Your task to perform on an android device: Open Chrome and go to settings Image 0: 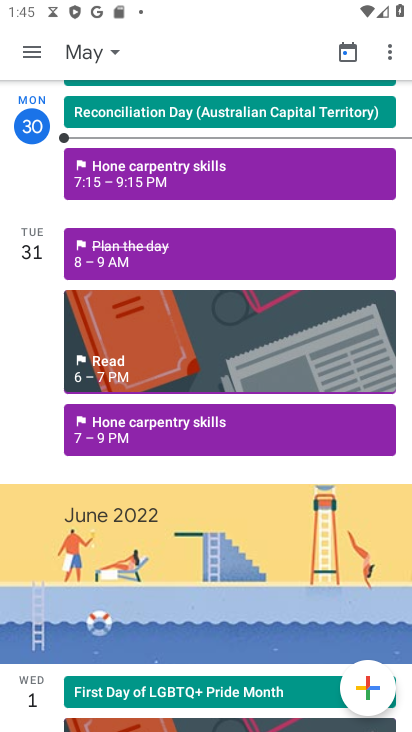
Step 0: press home button
Your task to perform on an android device: Open Chrome and go to settings Image 1: 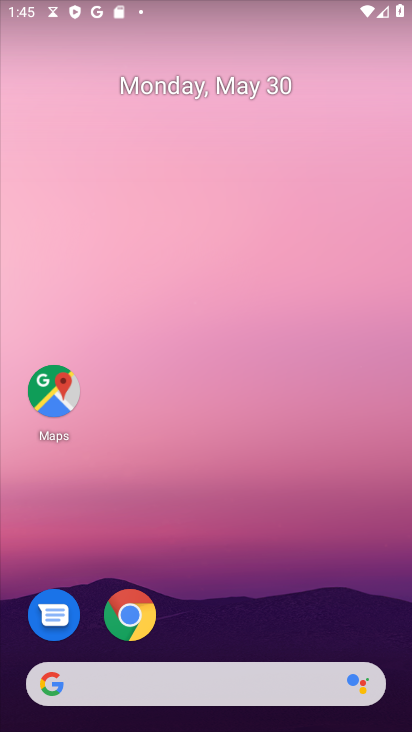
Step 1: drag from (326, 550) to (330, 0)
Your task to perform on an android device: Open Chrome and go to settings Image 2: 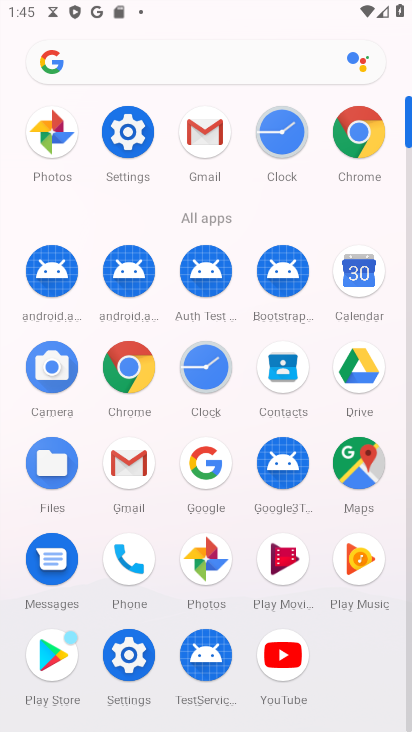
Step 2: click (368, 143)
Your task to perform on an android device: Open Chrome and go to settings Image 3: 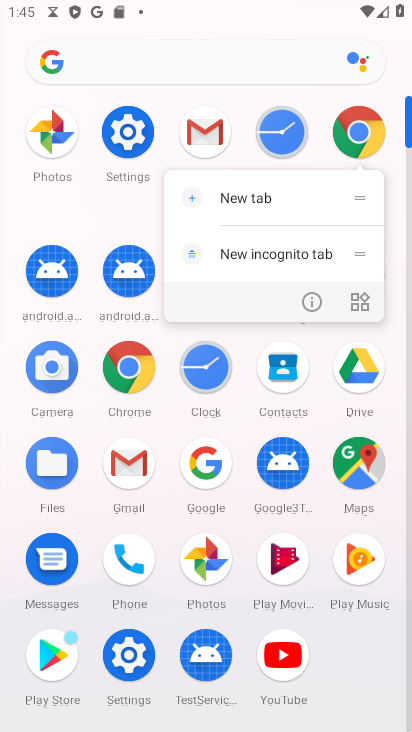
Step 3: click (125, 148)
Your task to perform on an android device: Open Chrome and go to settings Image 4: 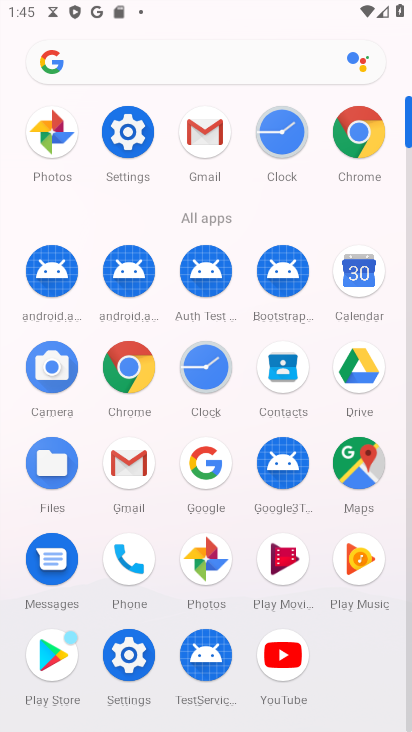
Step 4: click (376, 147)
Your task to perform on an android device: Open Chrome and go to settings Image 5: 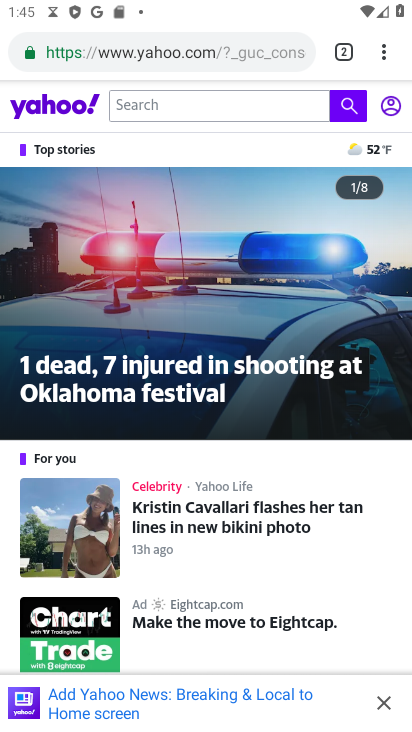
Step 5: task complete